Your task to perform on an android device: Open the web browser Image 0: 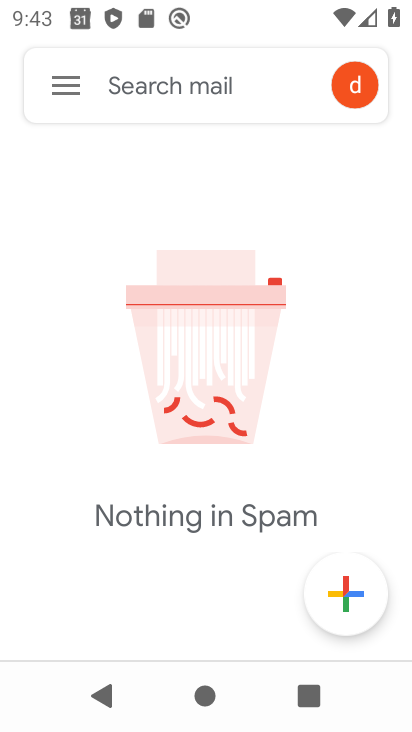
Step 0: press home button
Your task to perform on an android device: Open the web browser Image 1: 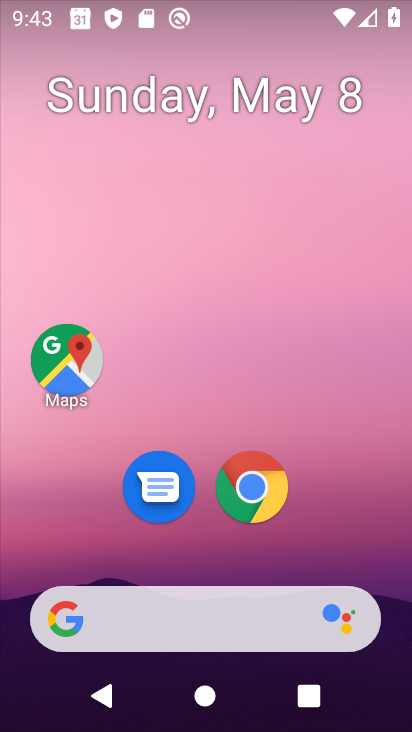
Step 1: click (279, 493)
Your task to perform on an android device: Open the web browser Image 2: 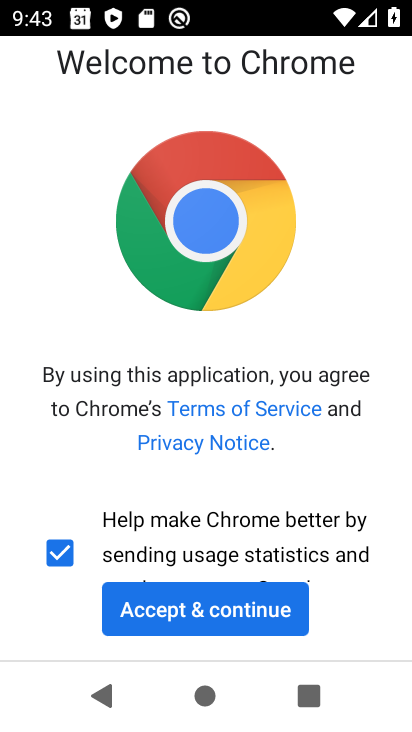
Step 2: click (231, 607)
Your task to perform on an android device: Open the web browser Image 3: 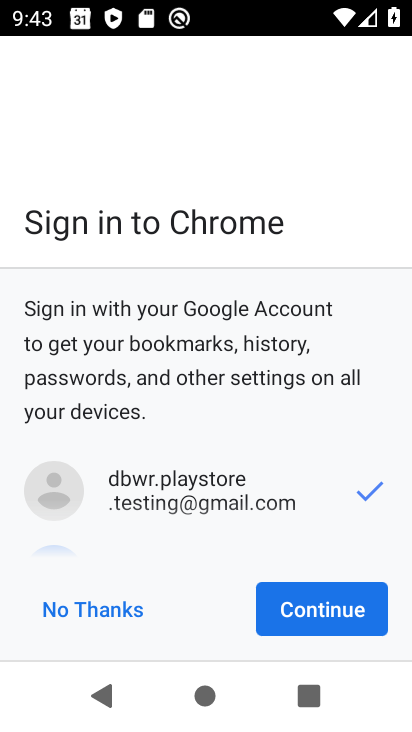
Step 3: click (87, 610)
Your task to perform on an android device: Open the web browser Image 4: 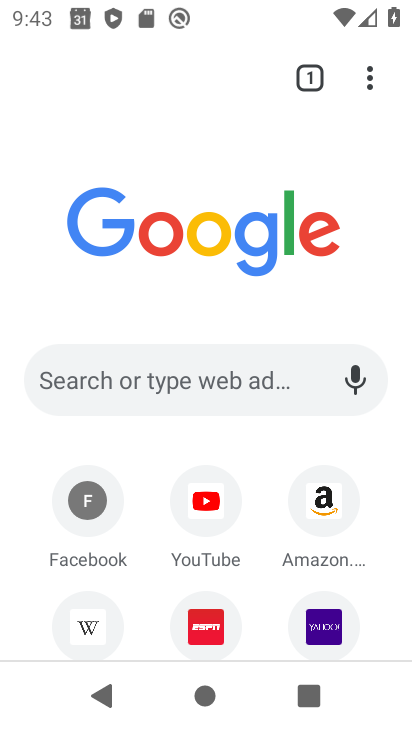
Step 4: task complete